Your task to perform on an android device: Do I have any events today? Image 0: 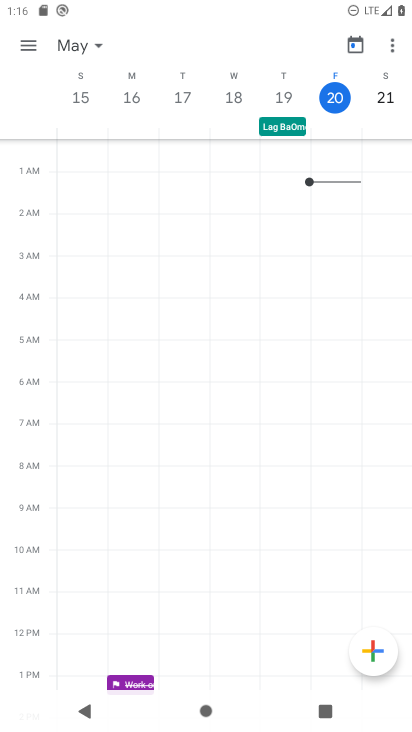
Step 0: press home button
Your task to perform on an android device: Do I have any events today? Image 1: 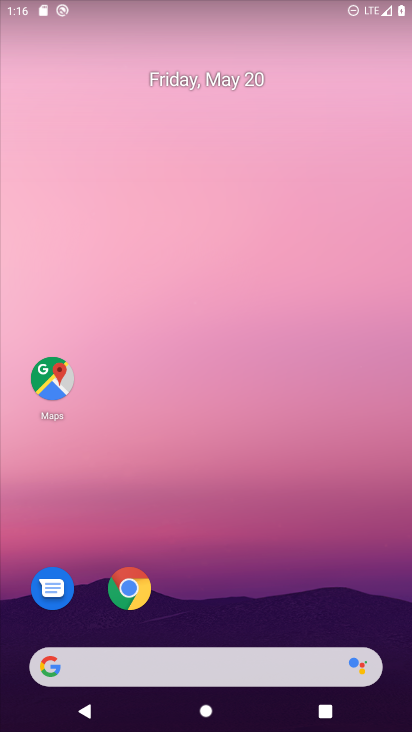
Step 1: drag from (357, 616) to (313, 202)
Your task to perform on an android device: Do I have any events today? Image 2: 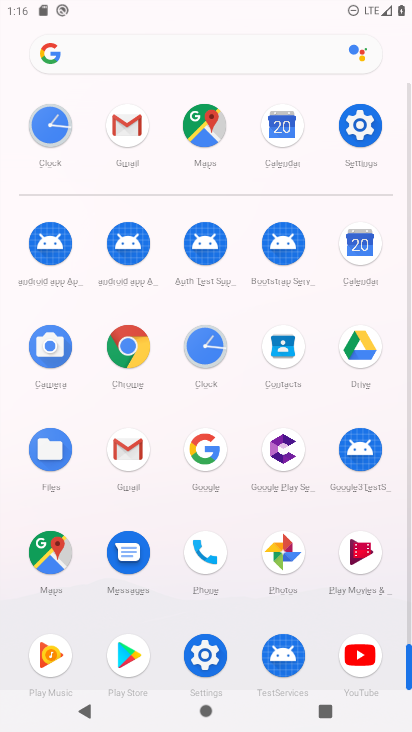
Step 2: click (358, 246)
Your task to perform on an android device: Do I have any events today? Image 3: 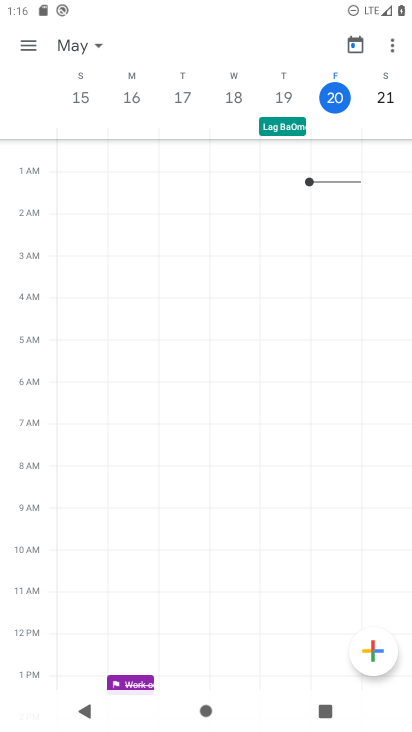
Step 3: click (25, 48)
Your task to perform on an android device: Do I have any events today? Image 4: 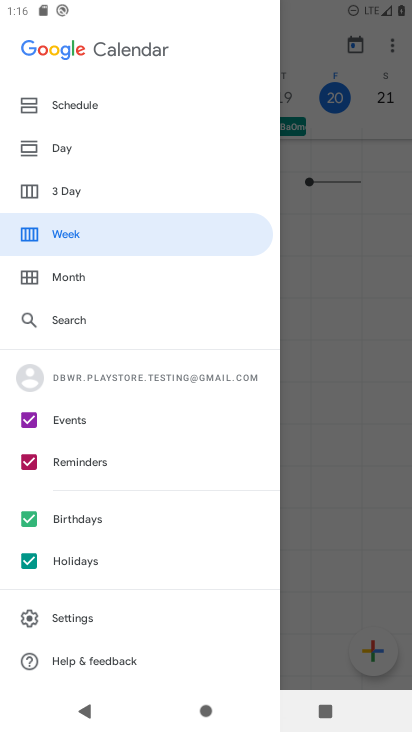
Step 4: click (65, 147)
Your task to perform on an android device: Do I have any events today? Image 5: 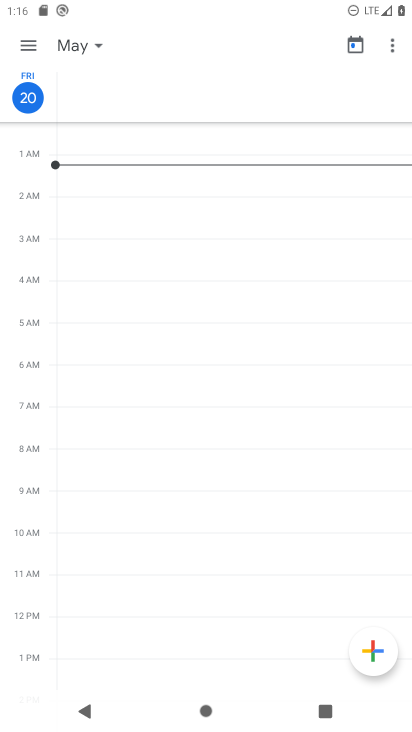
Step 5: click (98, 43)
Your task to perform on an android device: Do I have any events today? Image 6: 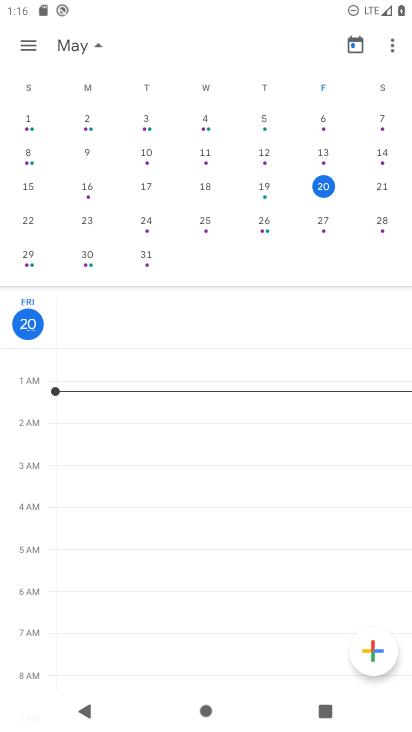
Step 6: click (324, 185)
Your task to perform on an android device: Do I have any events today? Image 7: 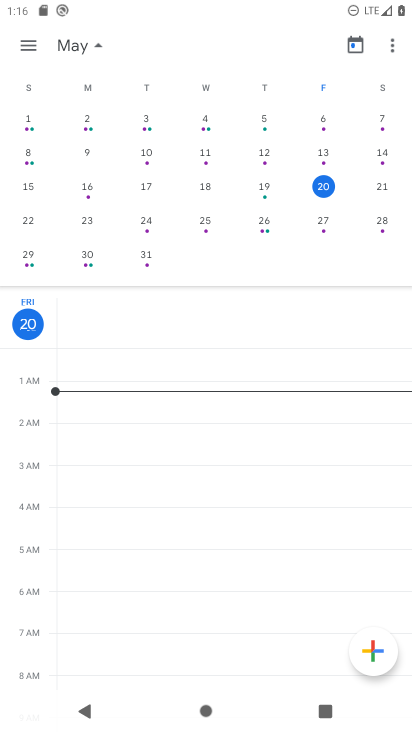
Step 7: task complete